Your task to perform on an android device: Open the Play Movies app and select the watchlist tab. Image 0: 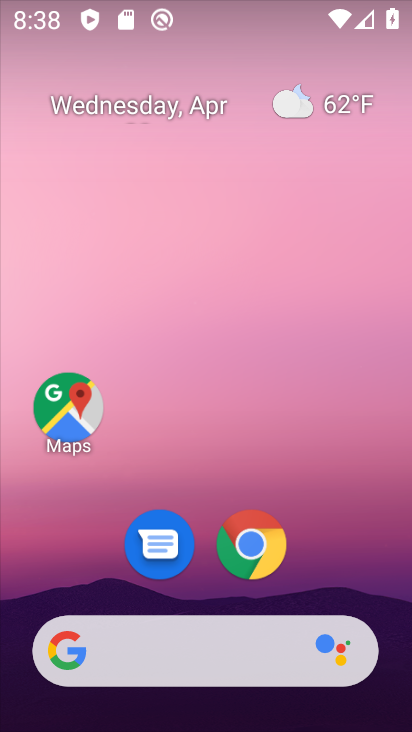
Step 0: drag from (354, 570) to (71, 128)
Your task to perform on an android device: Open the Play Movies app and select the watchlist tab. Image 1: 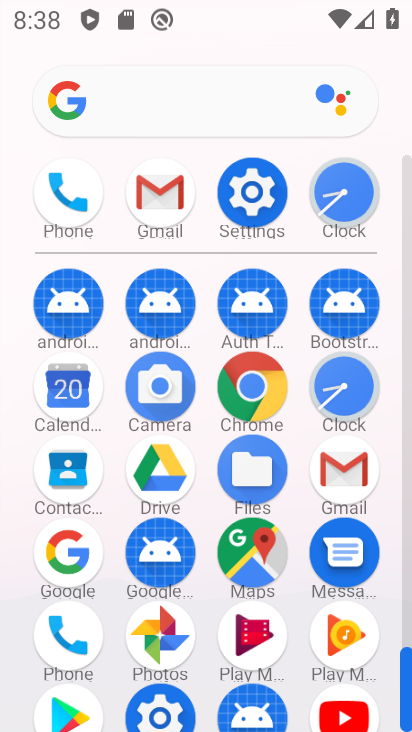
Step 1: click (247, 638)
Your task to perform on an android device: Open the Play Movies app and select the watchlist tab. Image 2: 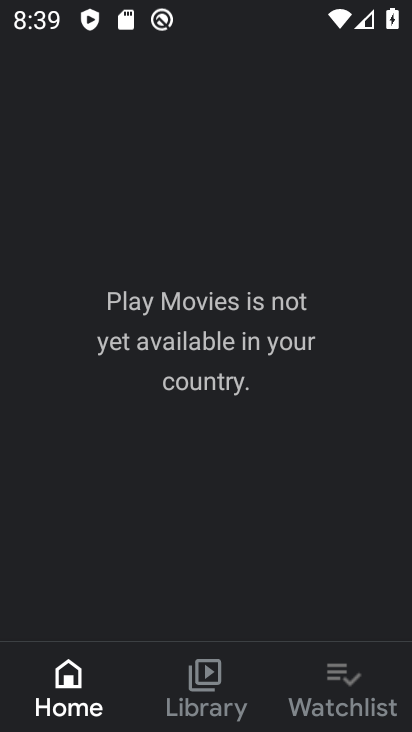
Step 2: click (334, 681)
Your task to perform on an android device: Open the Play Movies app and select the watchlist tab. Image 3: 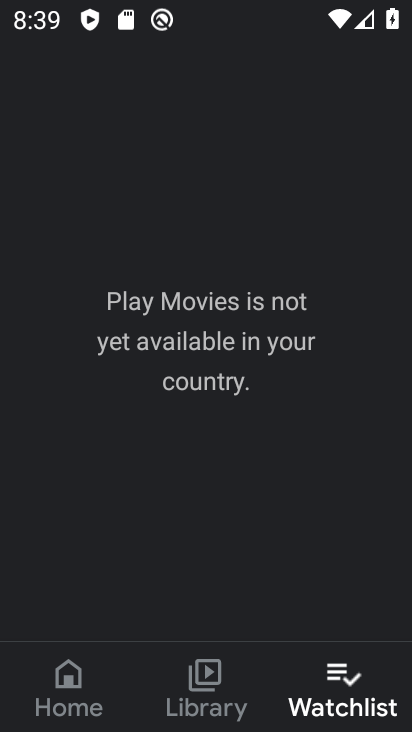
Step 3: task complete